Your task to perform on an android device: allow notifications from all sites in the chrome app Image 0: 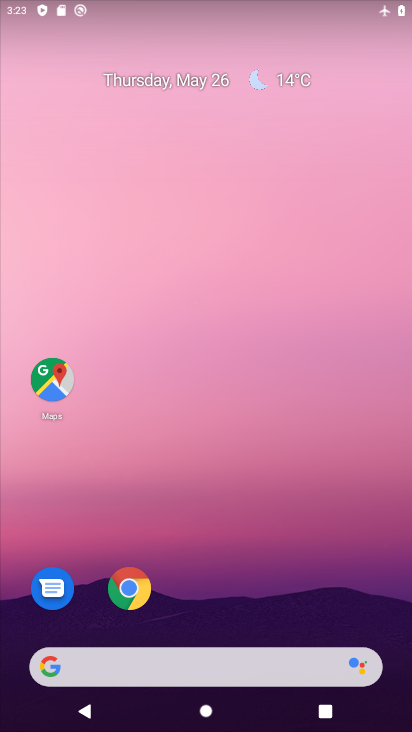
Step 0: click (128, 606)
Your task to perform on an android device: allow notifications from all sites in the chrome app Image 1: 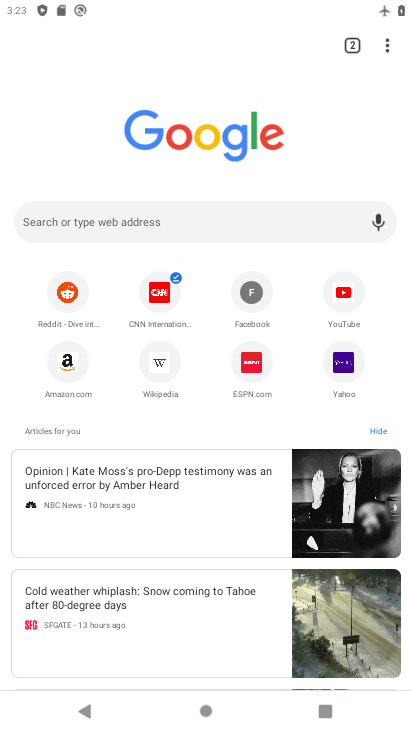
Step 1: click (383, 56)
Your task to perform on an android device: allow notifications from all sites in the chrome app Image 2: 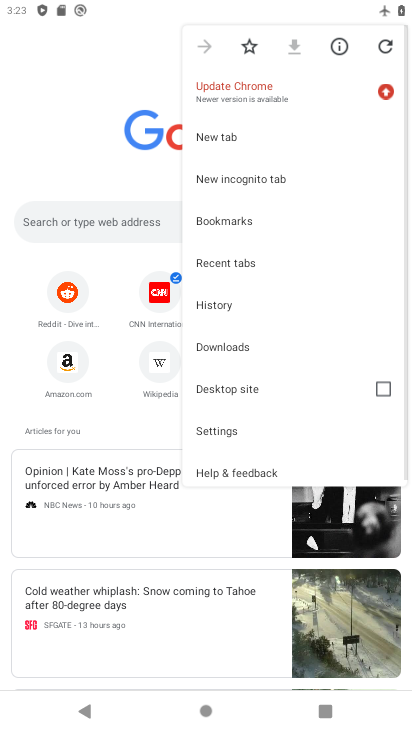
Step 2: click (255, 443)
Your task to perform on an android device: allow notifications from all sites in the chrome app Image 3: 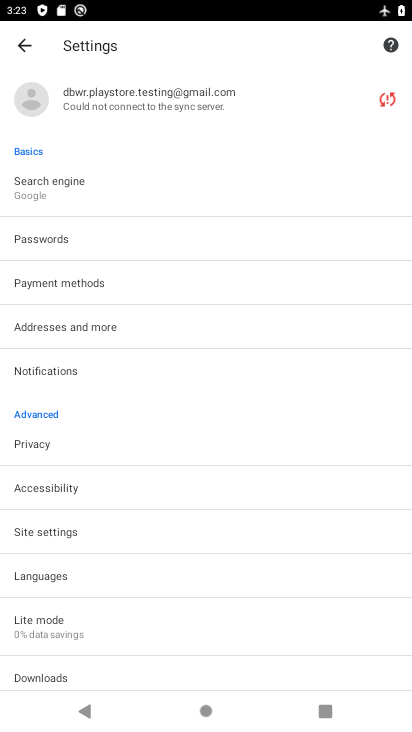
Step 3: click (150, 371)
Your task to perform on an android device: allow notifications from all sites in the chrome app Image 4: 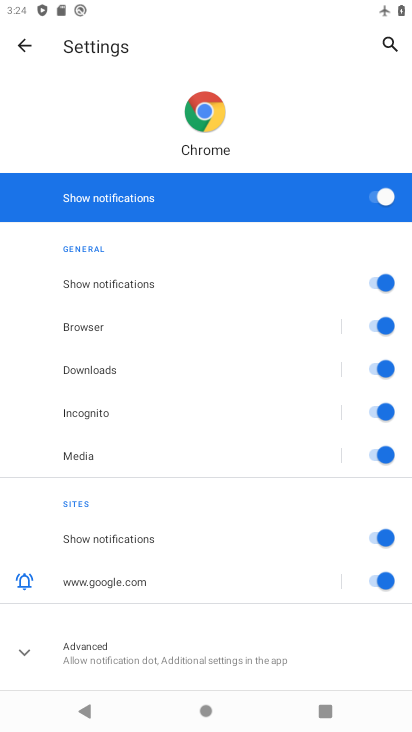
Step 4: click (365, 188)
Your task to perform on an android device: allow notifications from all sites in the chrome app Image 5: 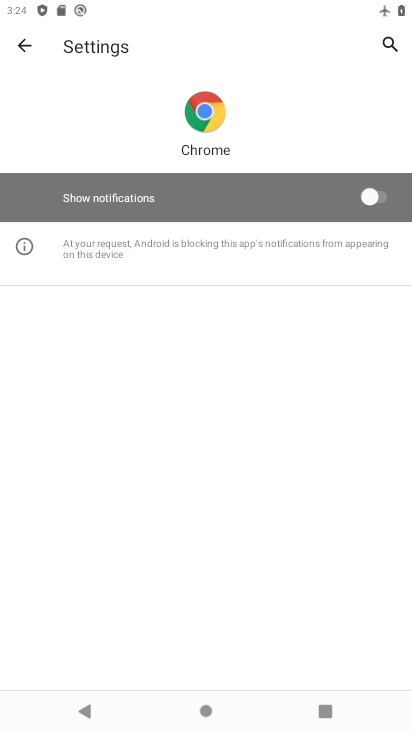
Step 5: task complete